Your task to perform on an android device: open app "AliExpress" (install if not already installed) and go to login screen Image 0: 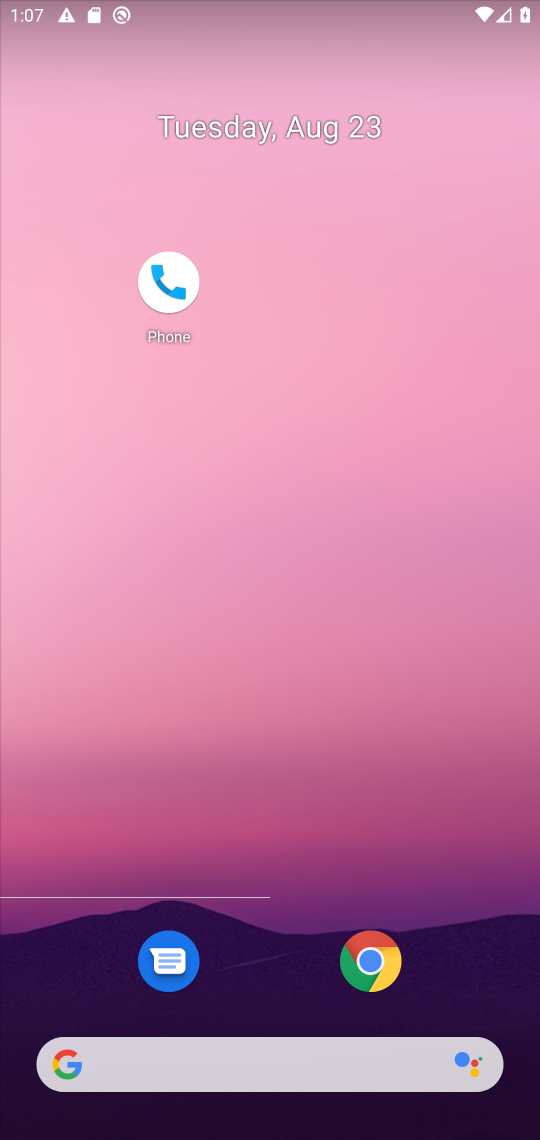
Step 0: drag from (255, 1017) to (177, 341)
Your task to perform on an android device: open app "AliExpress" (install if not already installed) and go to login screen Image 1: 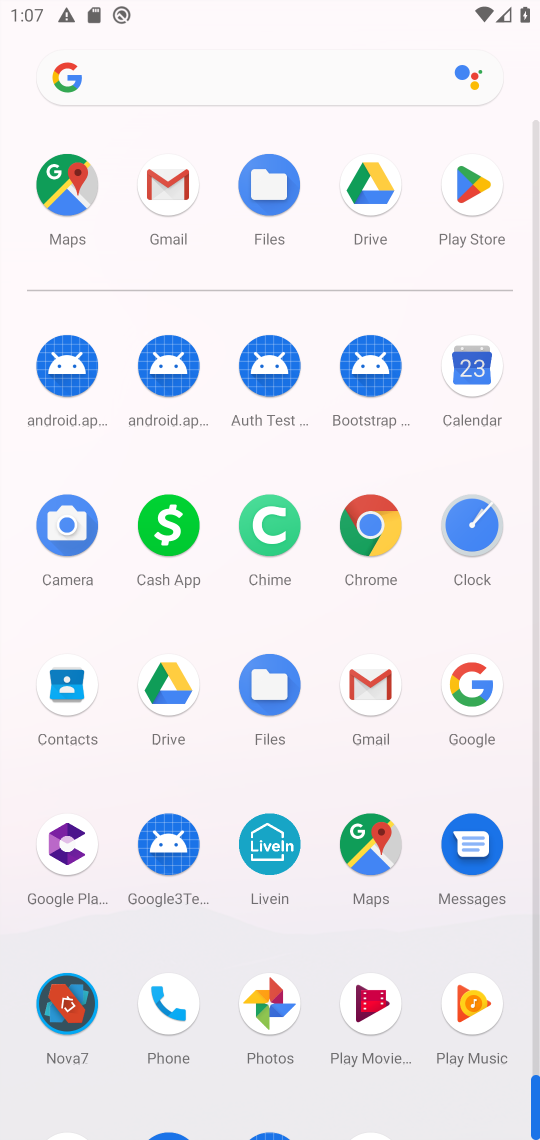
Step 1: click (454, 208)
Your task to perform on an android device: open app "AliExpress" (install if not already installed) and go to login screen Image 2: 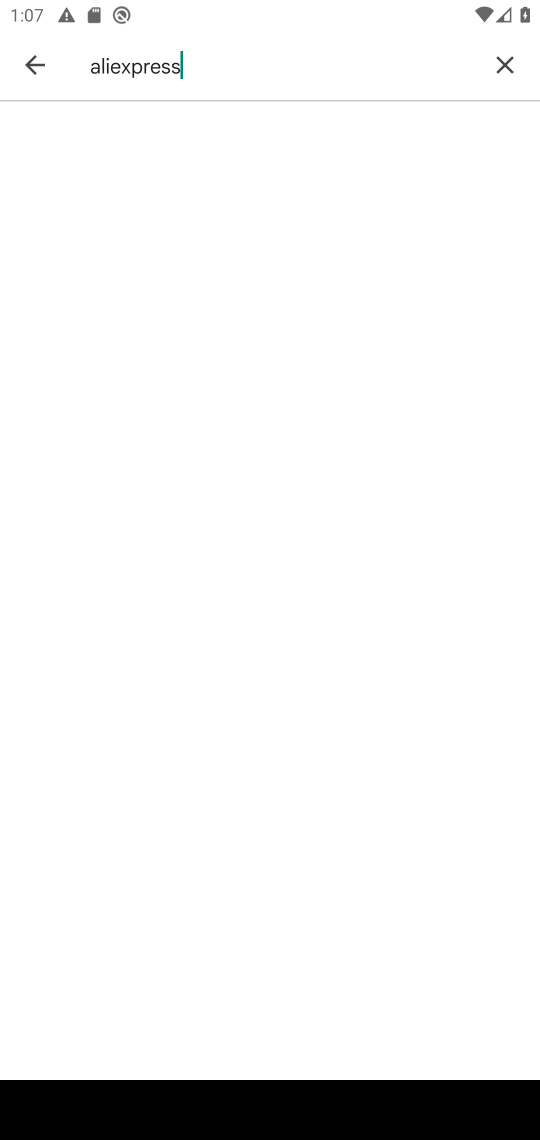
Step 2: click (511, 63)
Your task to perform on an android device: open app "AliExpress" (install if not already installed) and go to login screen Image 3: 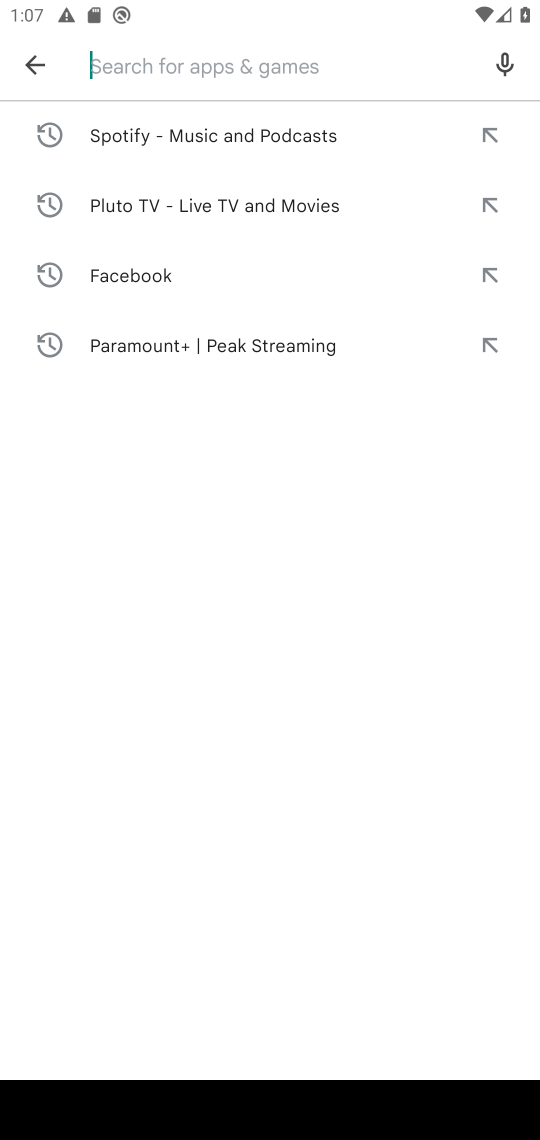
Step 3: task complete